Your task to perform on an android device: visit the assistant section in the google photos Image 0: 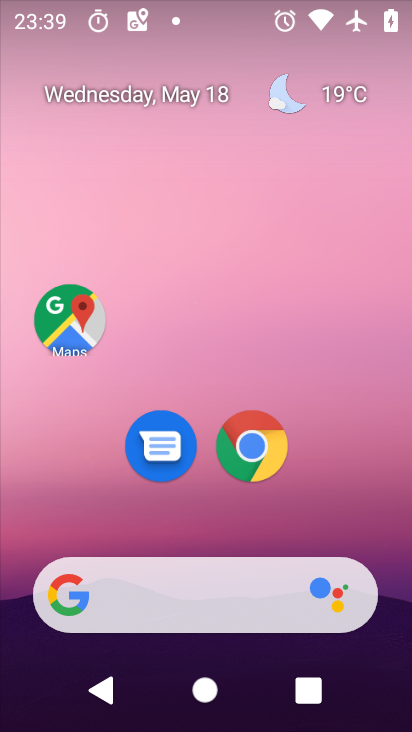
Step 0: press home button
Your task to perform on an android device: visit the assistant section in the google photos Image 1: 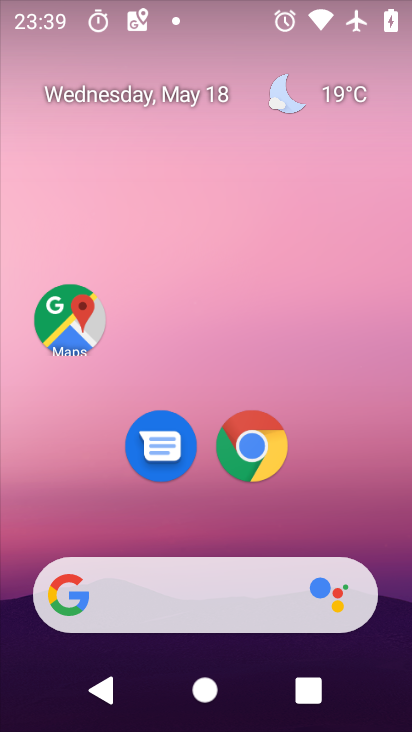
Step 1: drag from (191, 569) to (318, 148)
Your task to perform on an android device: visit the assistant section in the google photos Image 2: 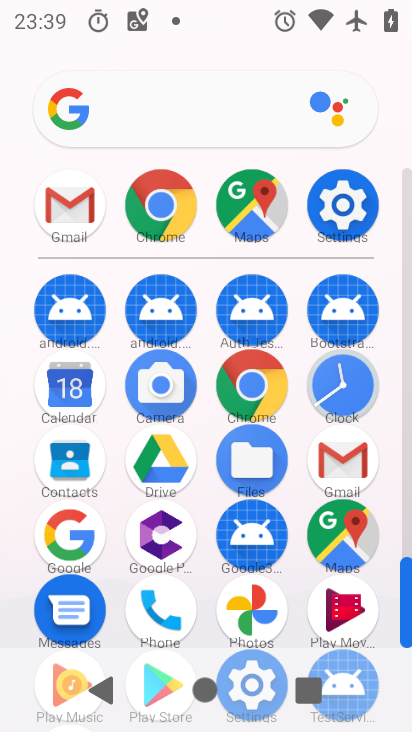
Step 2: click (243, 602)
Your task to perform on an android device: visit the assistant section in the google photos Image 3: 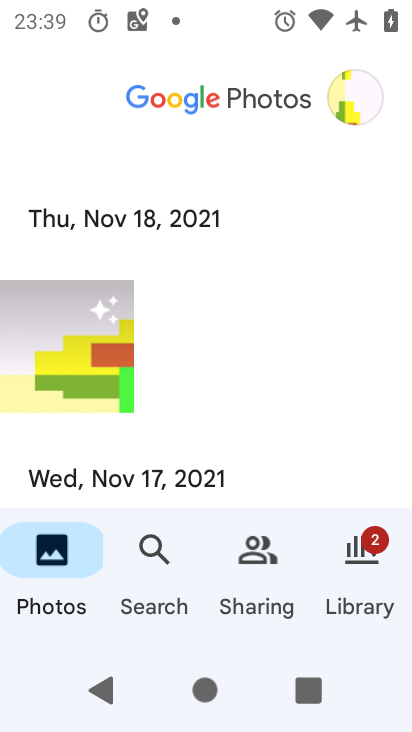
Step 3: click (167, 602)
Your task to perform on an android device: visit the assistant section in the google photos Image 4: 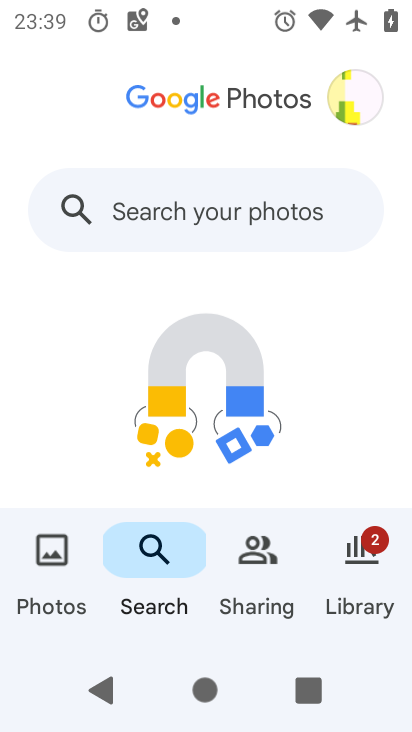
Step 4: task complete